Your task to perform on an android device: open wifi settings Image 0: 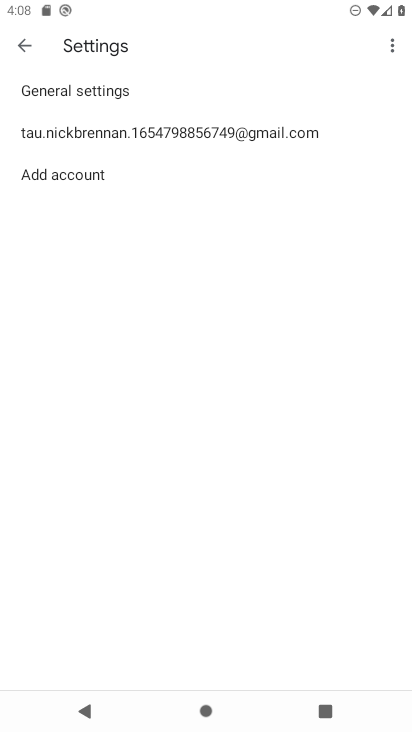
Step 0: press home button
Your task to perform on an android device: open wifi settings Image 1: 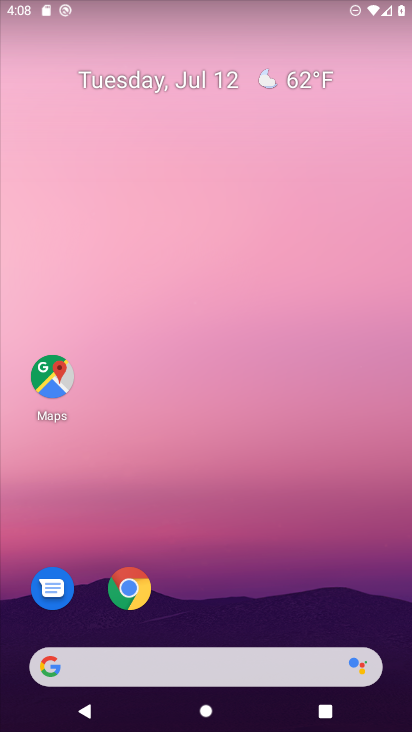
Step 1: drag from (200, 628) to (218, 21)
Your task to perform on an android device: open wifi settings Image 2: 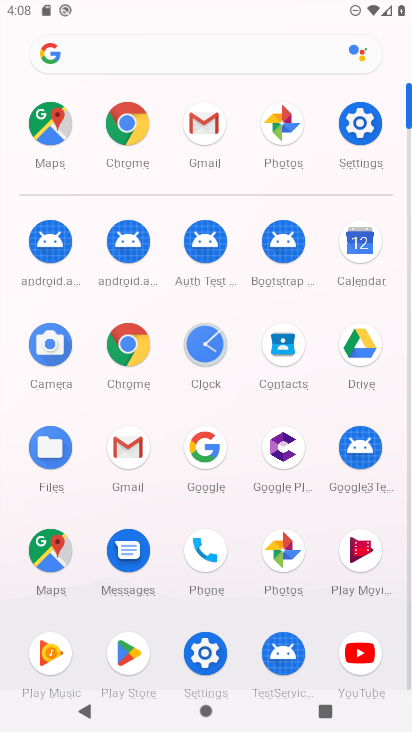
Step 2: click (209, 655)
Your task to perform on an android device: open wifi settings Image 3: 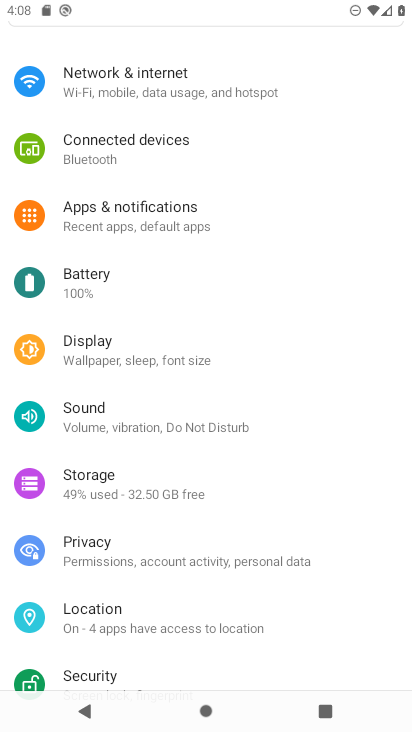
Step 3: drag from (265, 153) to (264, 495)
Your task to perform on an android device: open wifi settings Image 4: 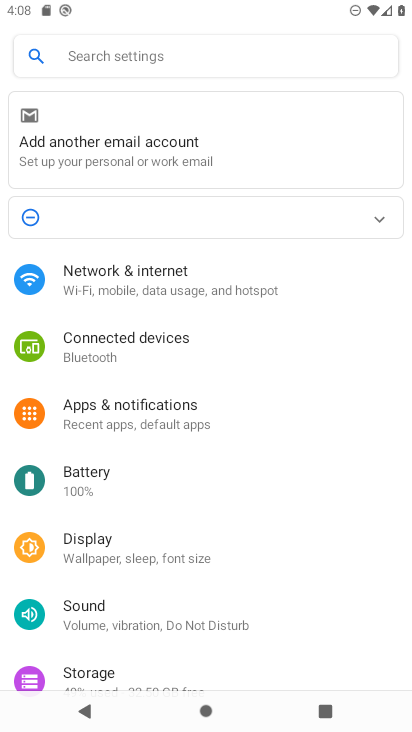
Step 4: click (164, 279)
Your task to perform on an android device: open wifi settings Image 5: 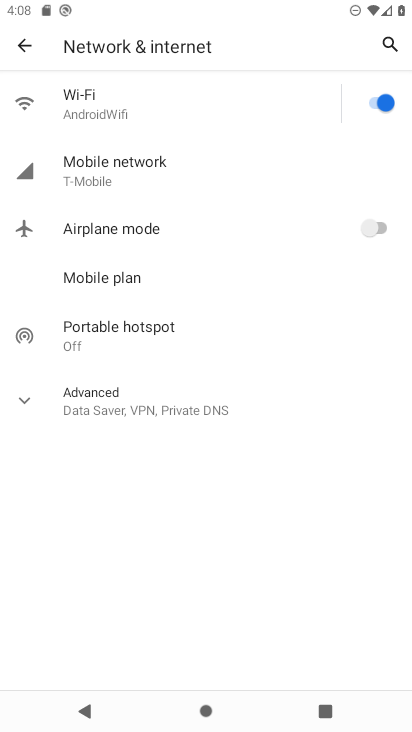
Step 5: click (192, 110)
Your task to perform on an android device: open wifi settings Image 6: 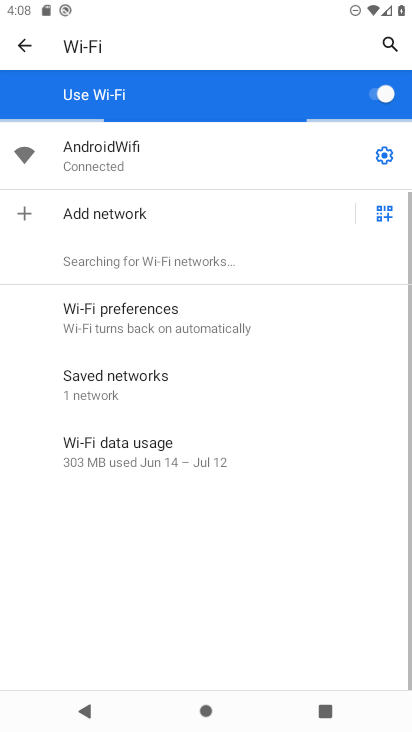
Step 6: task complete